Your task to perform on an android device: find snoozed emails in the gmail app Image 0: 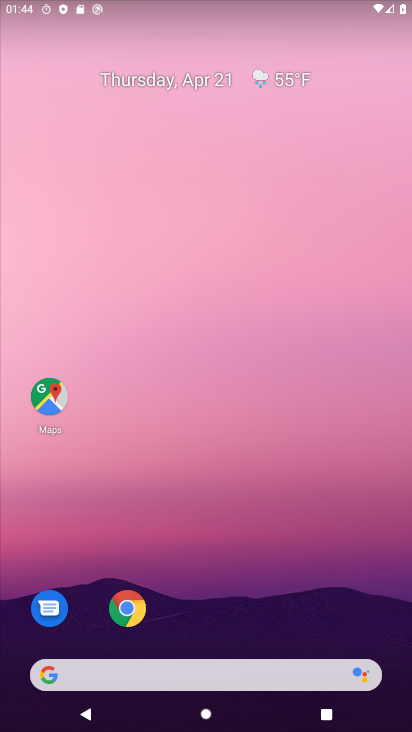
Step 0: drag from (168, 532) to (148, 238)
Your task to perform on an android device: find snoozed emails in the gmail app Image 1: 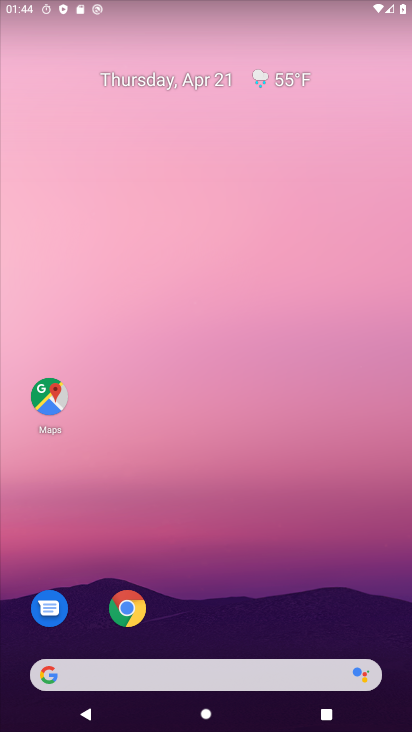
Step 1: drag from (274, 527) to (82, 128)
Your task to perform on an android device: find snoozed emails in the gmail app Image 2: 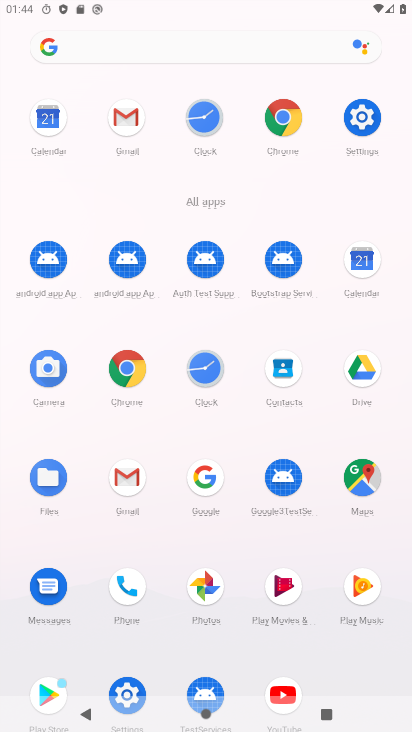
Step 2: click (128, 478)
Your task to perform on an android device: find snoozed emails in the gmail app Image 3: 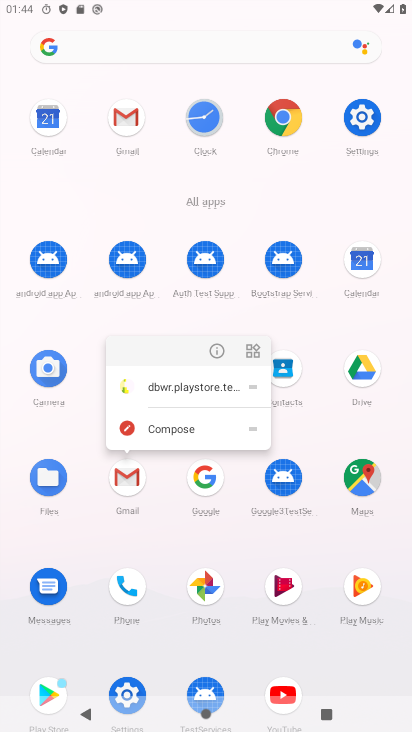
Step 3: click (128, 478)
Your task to perform on an android device: find snoozed emails in the gmail app Image 4: 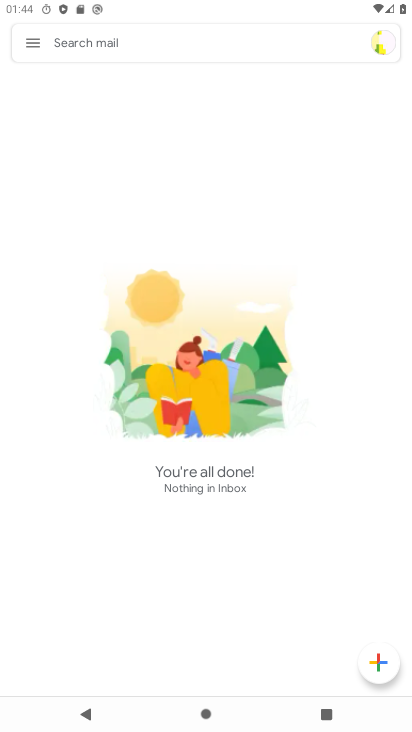
Step 4: click (33, 44)
Your task to perform on an android device: find snoozed emails in the gmail app Image 5: 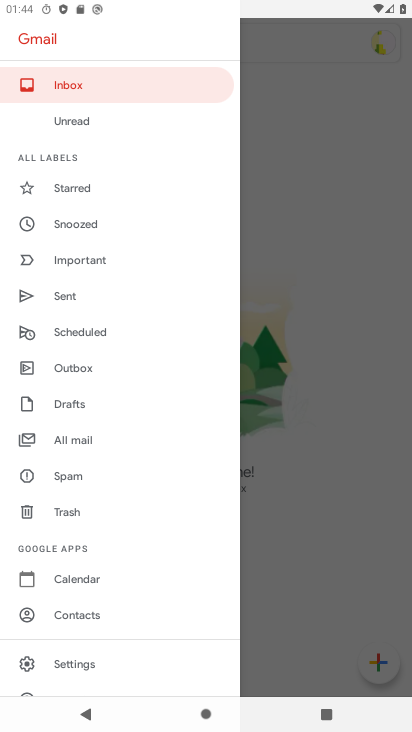
Step 5: click (70, 221)
Your task to perform on an android device: find snoozed emails in the gmail app Image 6: 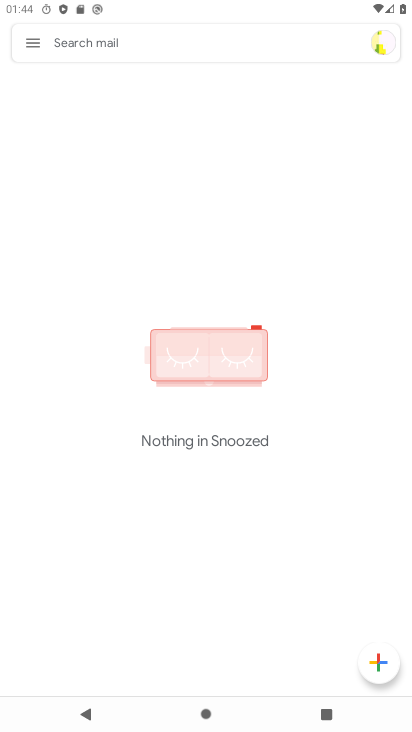
Step 6: task complete